Your task to perform on an android device: Do I have any events today? Image 0: 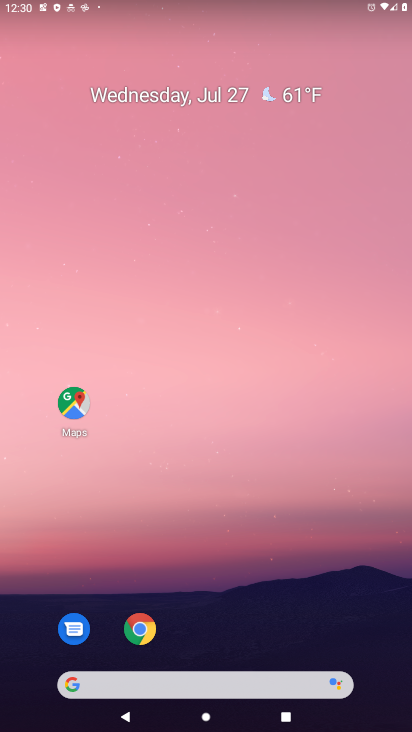
Step 0: drag from (232, 653) to (232, 156)
Your task to perform on an android device: Do I have any events today? Image 1: 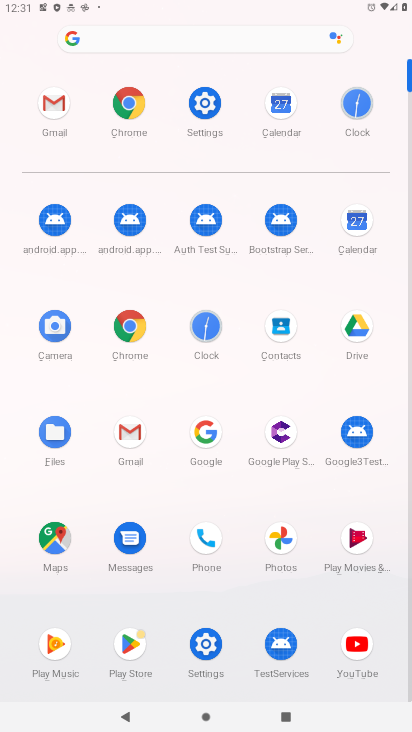
Step 1: click (298, 134)
Your task to perform on an android device: Do I have any events today? Image 2: 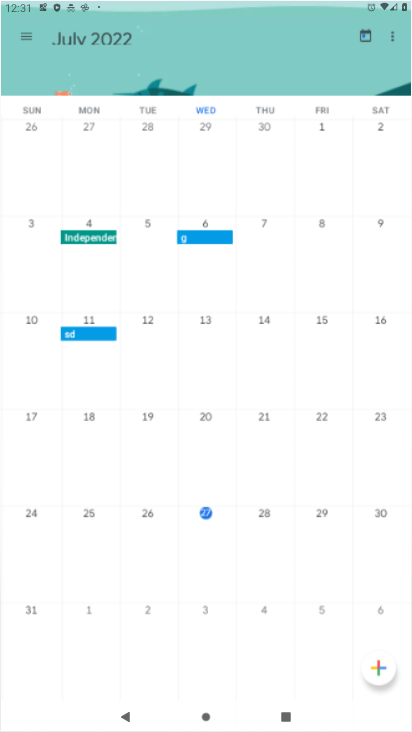
Step 2: task complete